Your task to perform on an android device: Open my contact list Image 0: 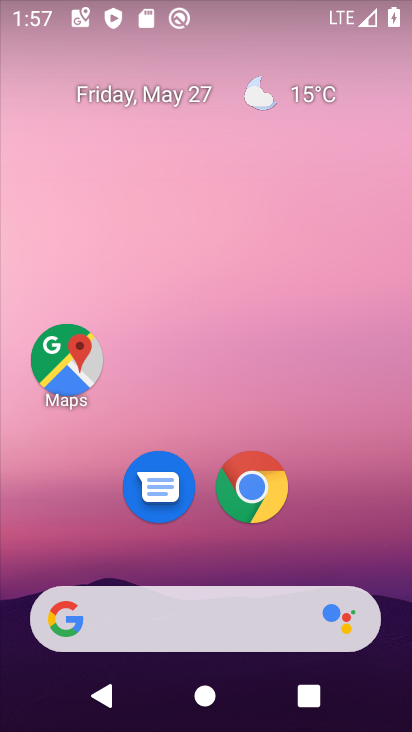
Step 0: drag from (362, 465) to (342, 51)
Your task to perform on an android device: Open my contact list Image 1: 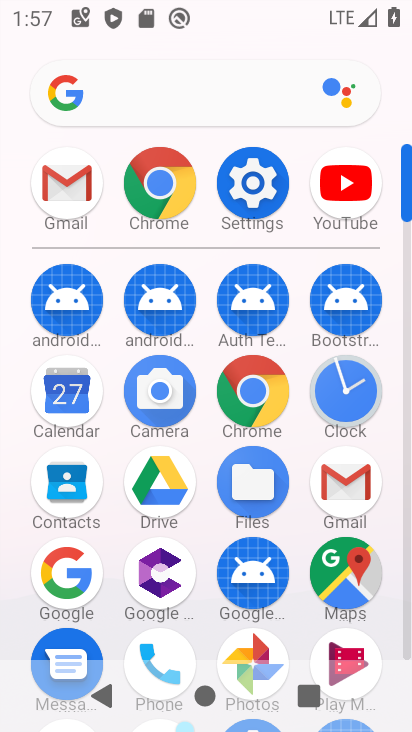
Step 1: click (73, 480)
Your task to perform on an android device: Open my contact list Image 2: 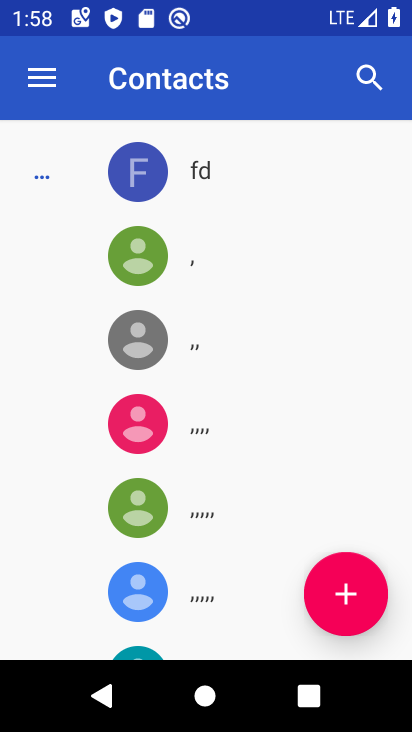
Step 2: task complete